Your task to perform on an android device: allow notifications from all sites in the chrome app Image 0: 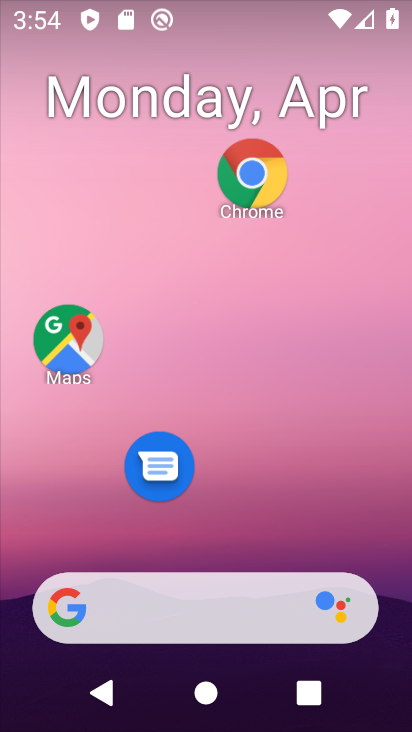
Step 0: click (259, 205)
Your task to perform on an android device: allow notifications from all sites in the chrome app Image 1: 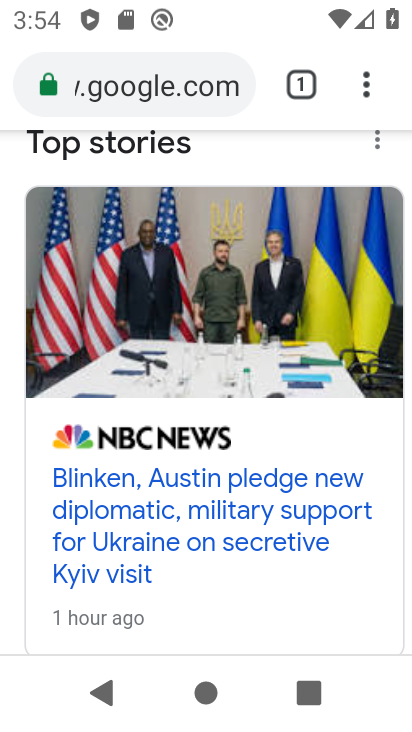
Step 1: drag from (379, 111) to (215, 522)
Your task to perform on an android device: allow notifications from all sites in the chrome app Image 2: 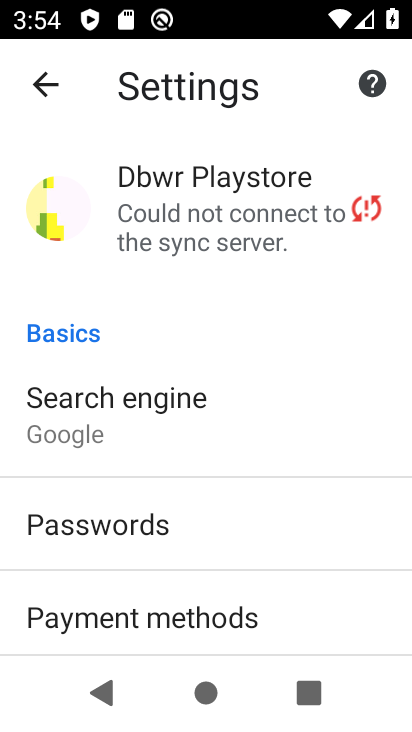
Step 2: drag from (273, 593) to (259, 122)
Your task to perform on an android device: allow notifications from all sites in the chrome app Image 3: 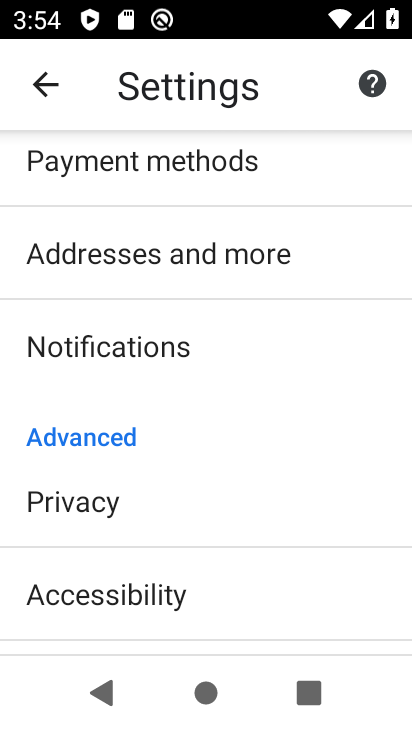
Step 3: drag from (322, 560) to (258, 158)
Your task to perform on an android device: allow notifications from all sites in the chrome app Image 4: 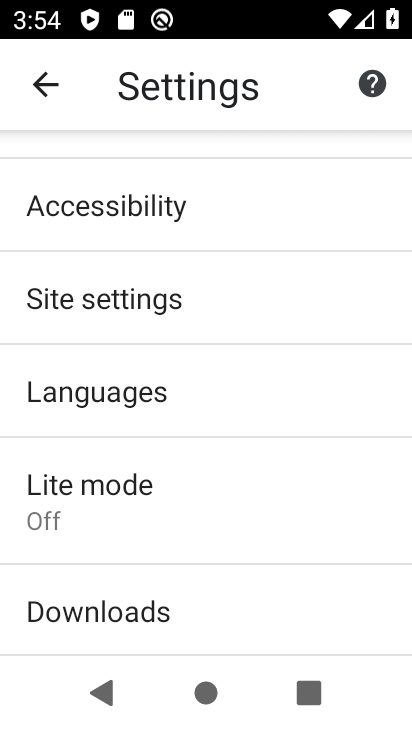
Step 4: click (267, 314)
Your task to perform on an android device: allow notifications from all sites in the chrome app Image 5: 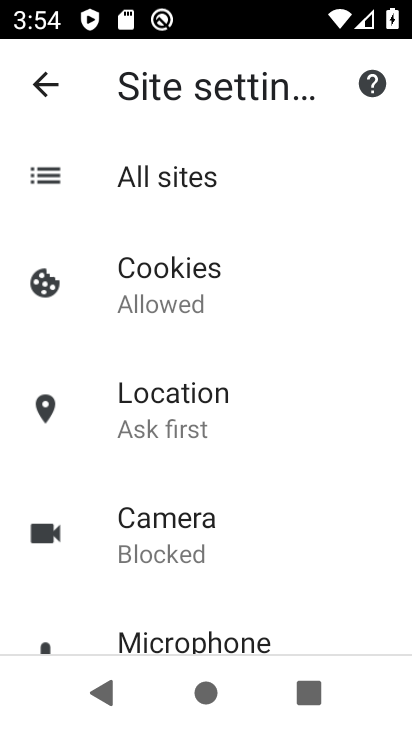
Step 5: drag from (312, 631) to (271, 177)
Your task to perform on an android device: allow notifications from all sites in the chrome app Image 6: 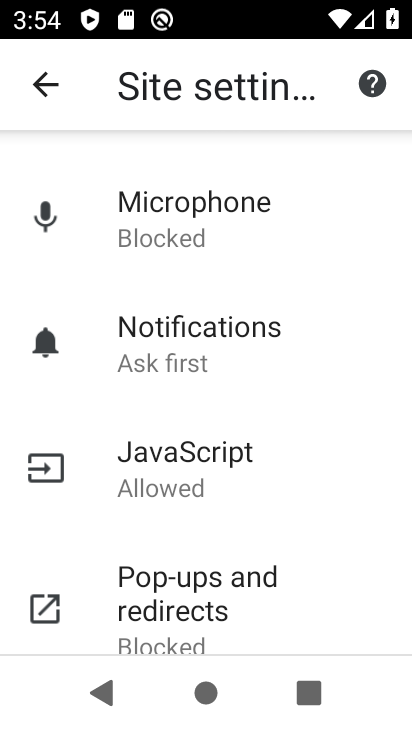
Step 6: drag from (289, 397) to (276, 259)
Your task to perform on an android device: allow notifications from all sites in the chrome app Image 7: 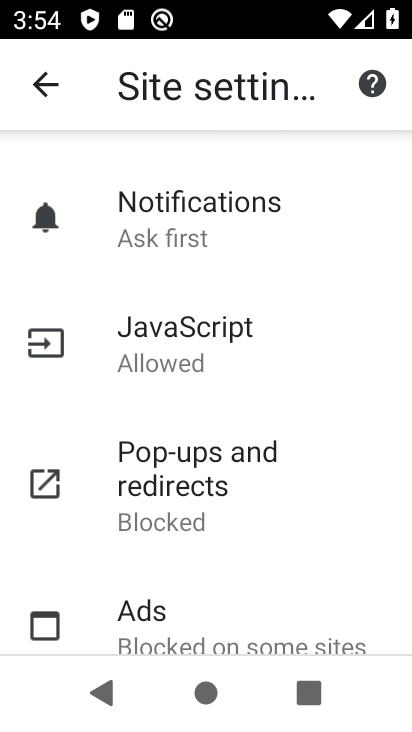
Step 7: click (268, 236)
Your task to perform on an android device: allow notifications from all sites in the chrome app Image 8: 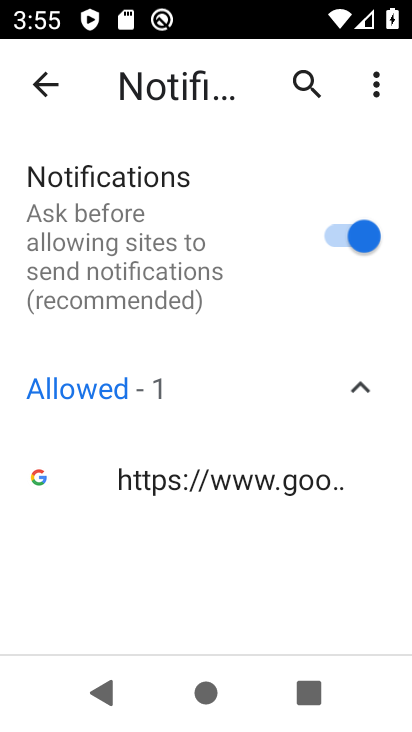
Step 8: task complete